Your task to perform on an android device: set an alarm Image 0: 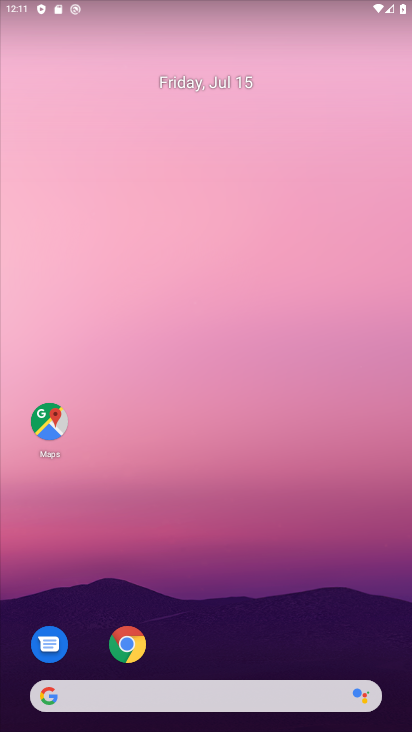
Step 0: drag from (203, 724) to (257, 236)
Your task to perform on an android device: set an alarm Image 1: 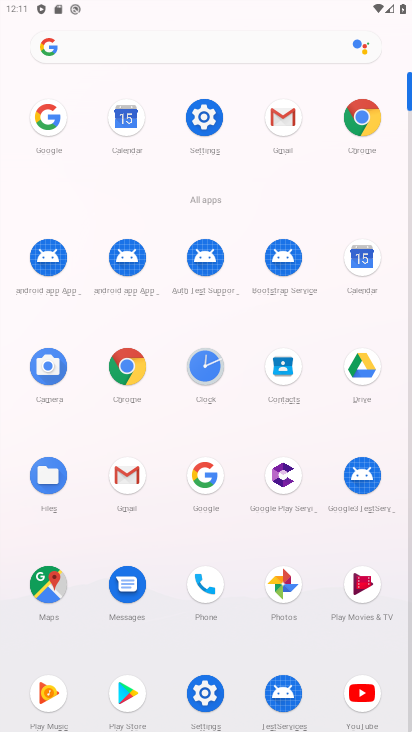
Step 1: click (215, 369)
Your task to perform on an android device: set an alarm Image 2: 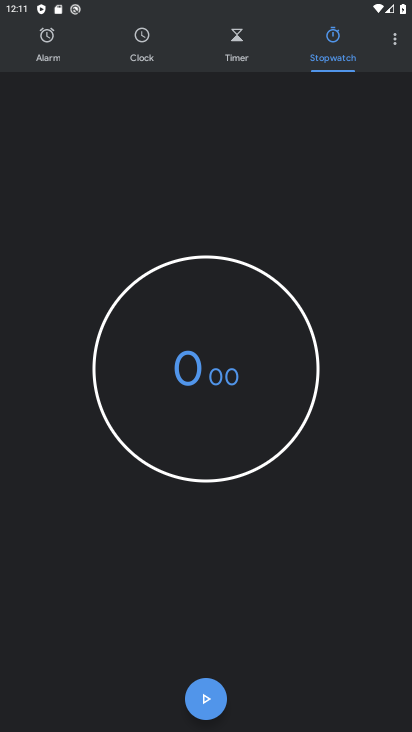
Step 2: click (51, 46)
Your task to perform on an android device: set an alarm Image 3: 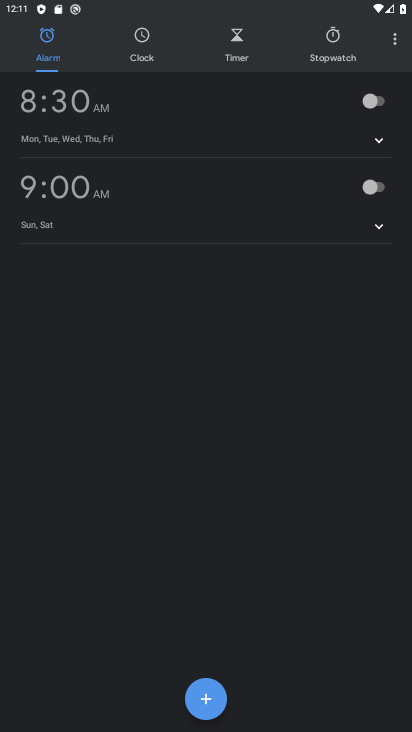
Step 3: click (195, 688)
Your task to perform on an android device: set an alarm Image 4: 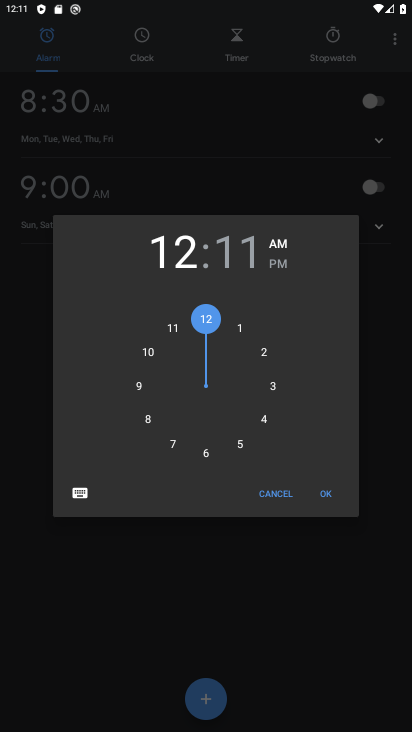
Step 4: click (209, 454)
Your task to perform on an android device: set an alarm Image 5: 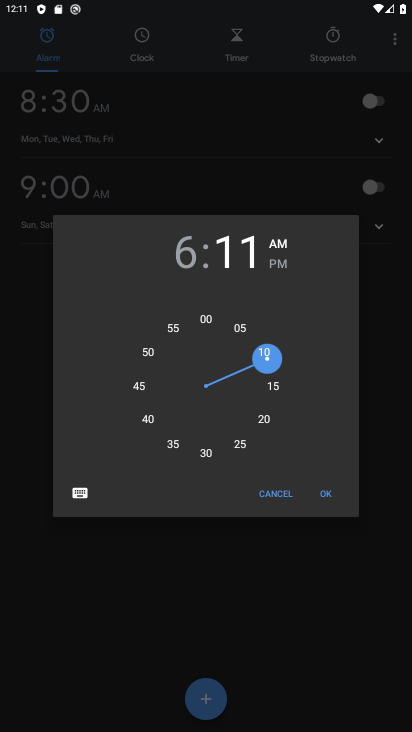
Step 5: click (335, 496)
Your task to perform on an android device: set an alarm Image 6: 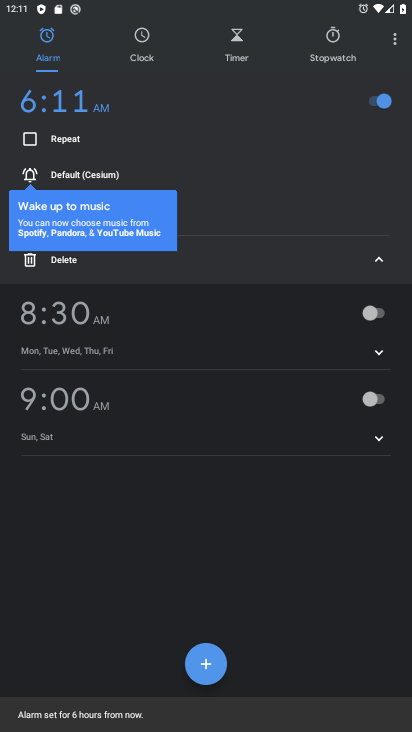
Step 6: task complete